Your task to perform on an android device: Open accessibility settings Image 0: 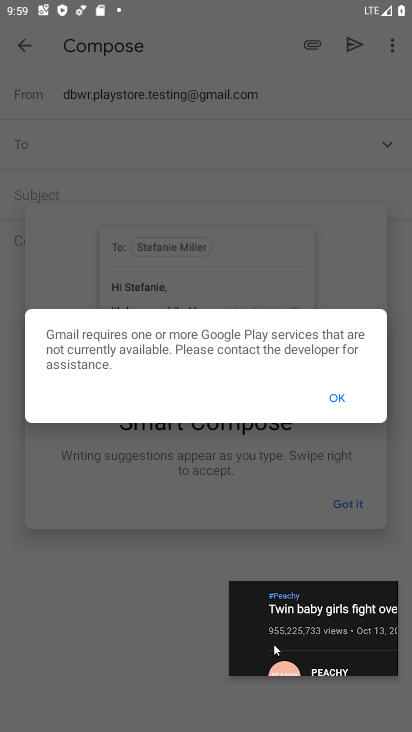
Step 0: press back button
Your task to perform on an android device: Open accessibility settings Image 1: 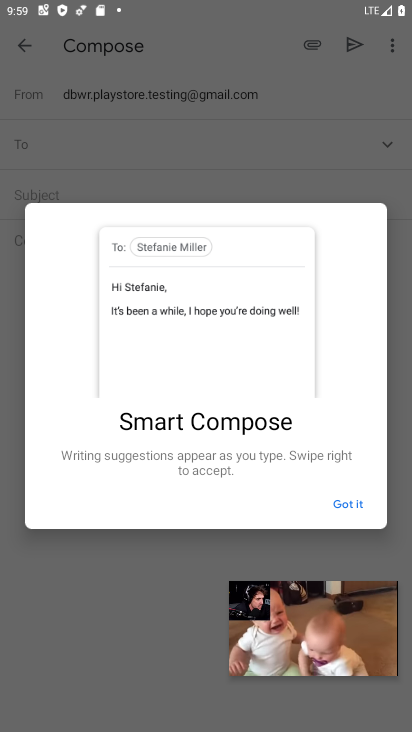
Step 1: press home button
Your task to perform on an android device: Open accessibility settings Image 2: 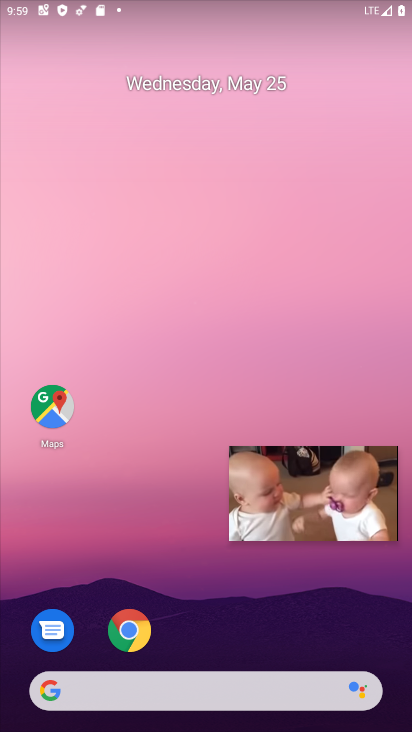
Step 2: click (281, 484)
Your task to perform on an android device: Open accessibility settings Image 3: 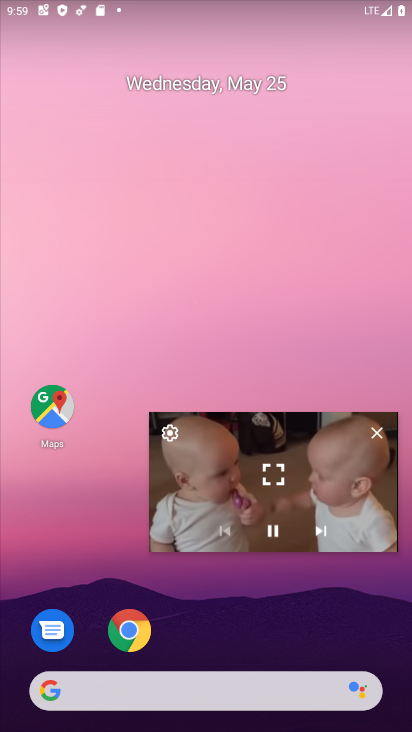
Step 3: click (263, 473)
Your task to perform on an android device: Open accessibility settings Image 4: 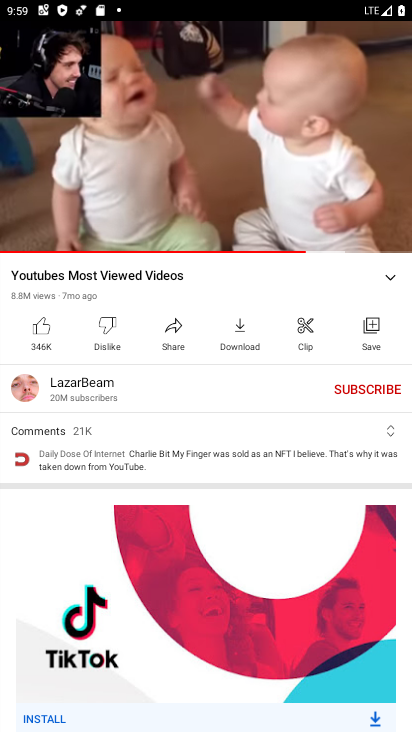
Step 4: click (184, 133)
Your task to perform on an android device: Open accessibility settings Image 5: 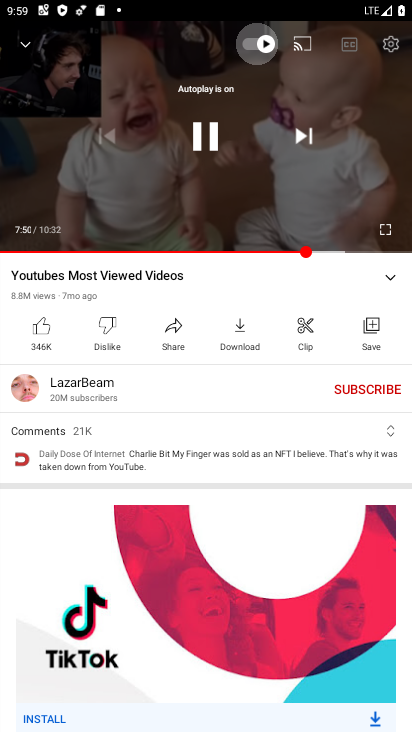
Step 5: click (214, 134)
Your task to perform on an android device: Open accessibility settings Image 6: 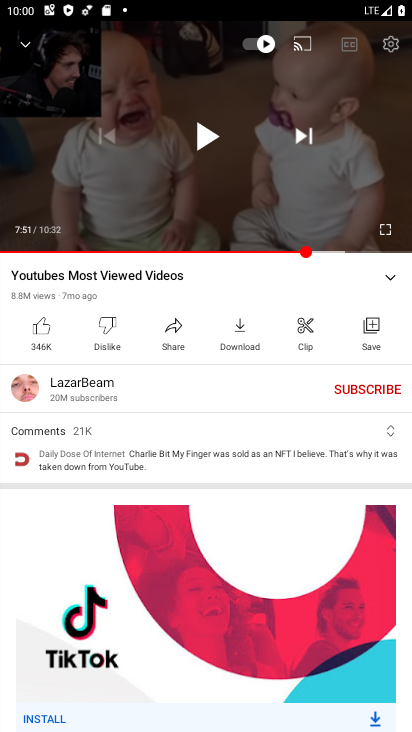
Step 6: press home button
Your task to perform on an android device: Open accessibility settings Image 7: 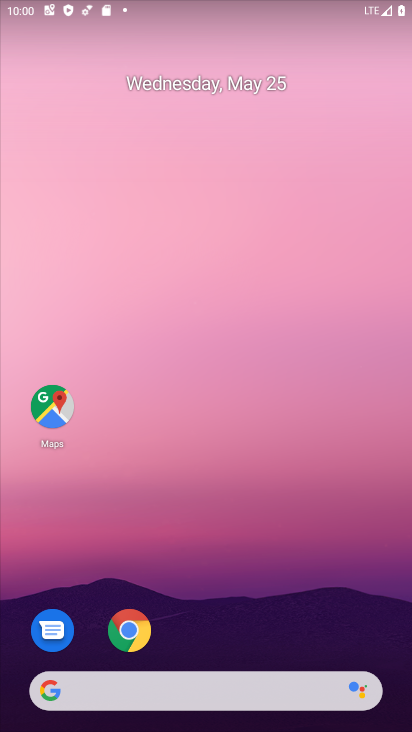
Step 7: drag from (213, 612) to (269, 95)
Your task to perform on an android device: Open accessibility settings Image 8: 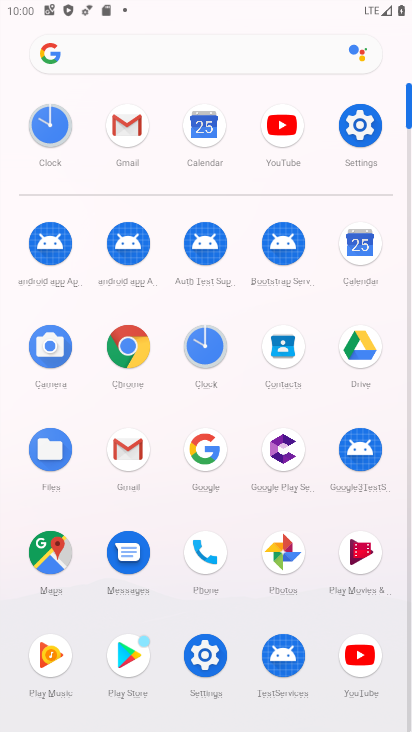
Step 8: click (350, 125)
Your task to perform on an android device: Open accessibility settings Image 9: 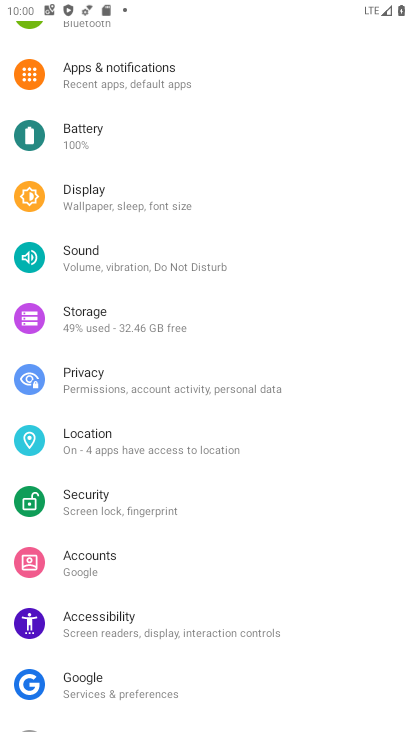
Step 9: drag from (144, 648) to (163, 494)
Your task to perform on an android device: Open accessibility settings Image 10: 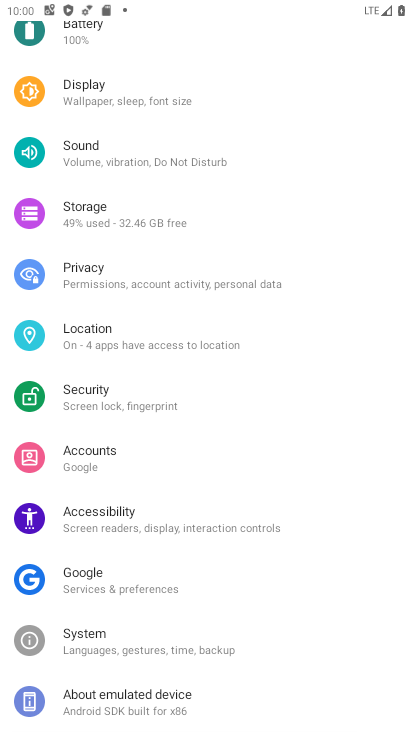
Step 10: click (112, 514)
Your task to perform on an android device: Open accessibility settings Image 11: 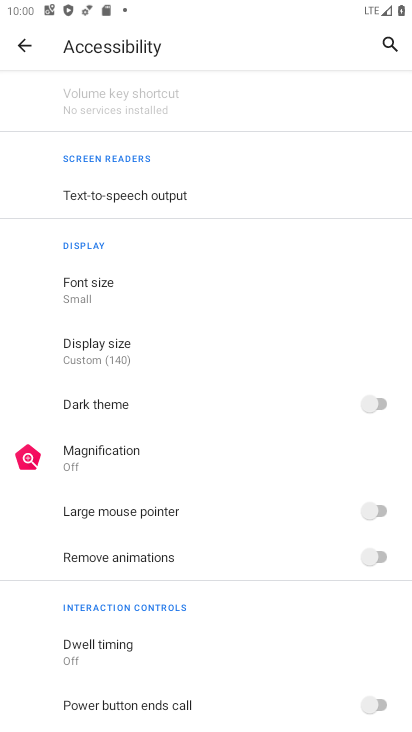
Step 11: task complete